Your task to perform on an android device: set the stopwatch Image 0: 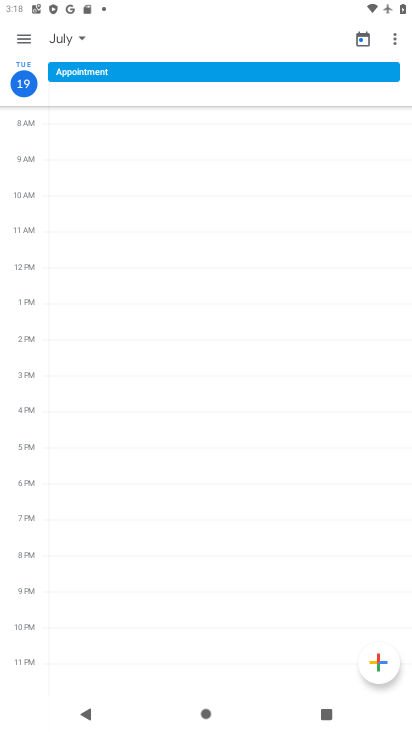
Step 0: press home button
Your task to perform on an android device: set the stopwatch Image 1: 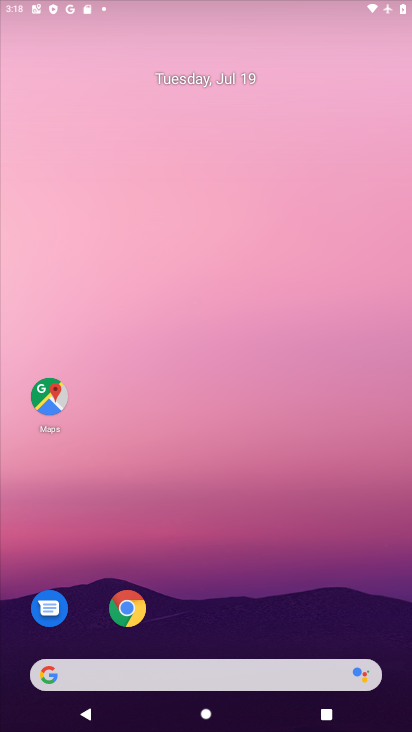
Step 1: drag from (379, 604) to (273, 4)
Your task to perform on an android device: set the stopwatch Image 2: 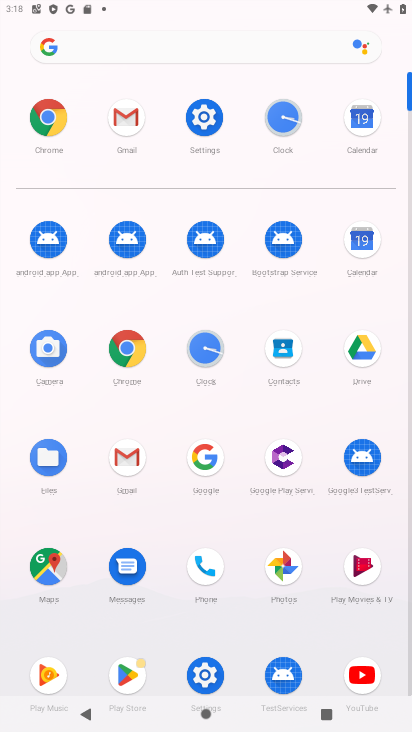
Step 2: click (281, 127)
Your task to perform on an android device: set the stopwatch Image 3: 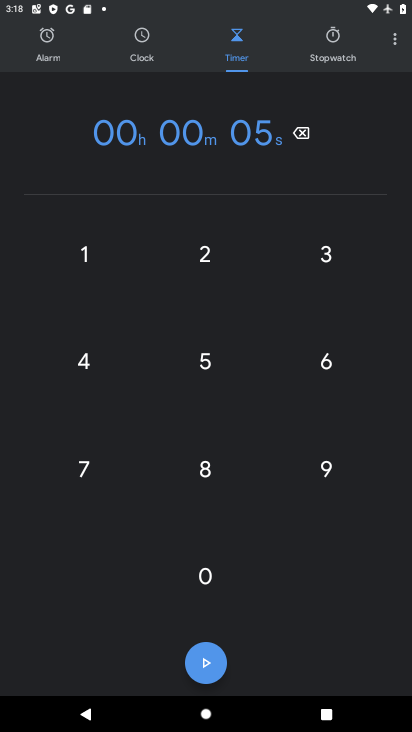
Step 3: click (331, 36)
Your task to perform on an android device: set the stopwatch Image 4: 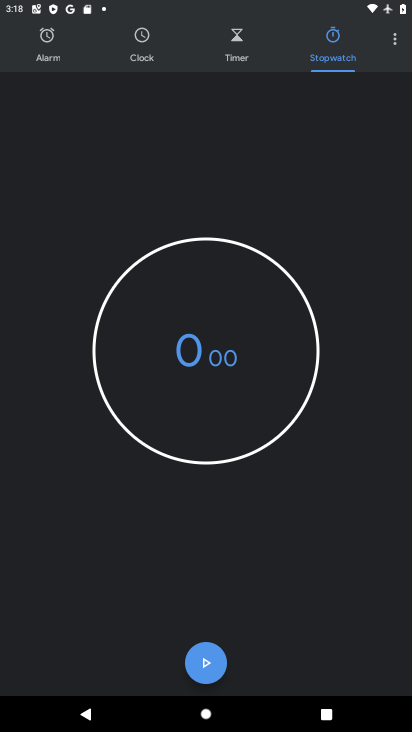
Step 4: click (221, 661)
Your task to perform on an android device: set the stopwatch Image 5: 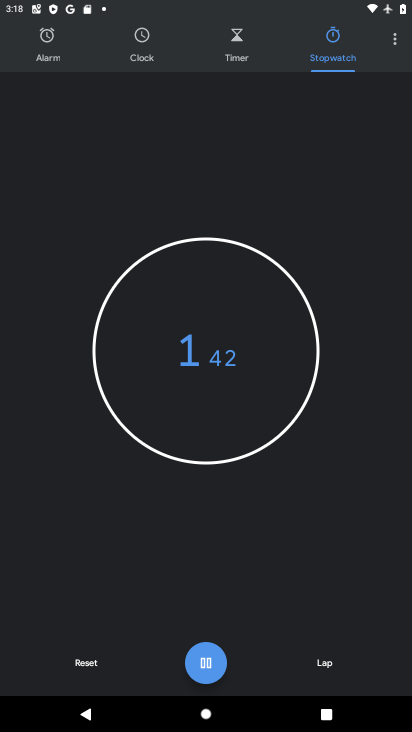
Step 5: click (221, 661)
Your task to perform on an android device: set the stopwatch Image 6: 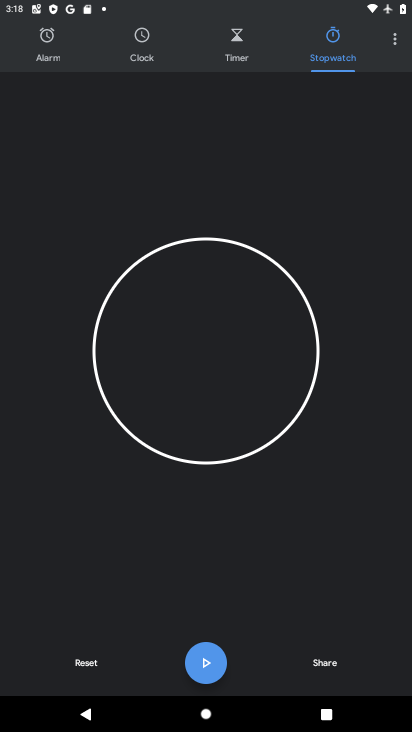
Step 6: task complete